Your task to perform on an android device: Show me productivity apps on the Play Store Image 0: 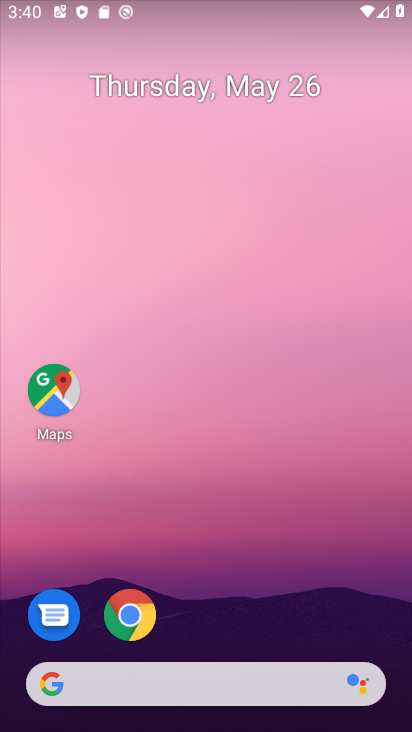
Step 0: drag from (303, 624) to (333, 58)
Your task to perform on an android device: Show me productivity apps on the Play Store Image 1: 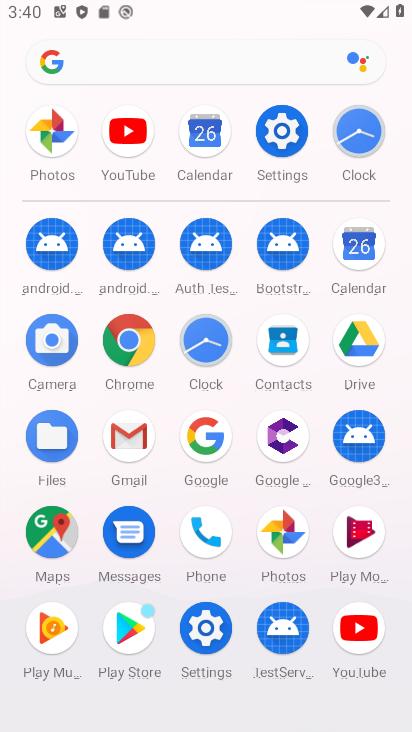
Step 1: click (95, 643)
Your task to perform on an android device: Show me productivity apps on the Play Store Image 2: 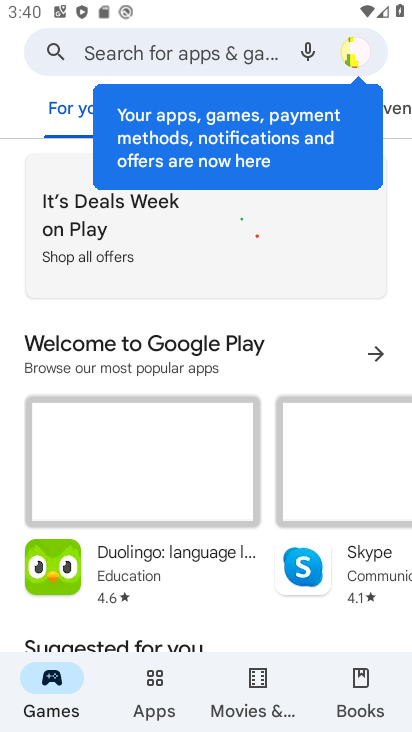
Step 2: drag from (121, 325) to (110, 189)
Your task to perform on an android device: Show me productivity apps on the Play Store Image 3: 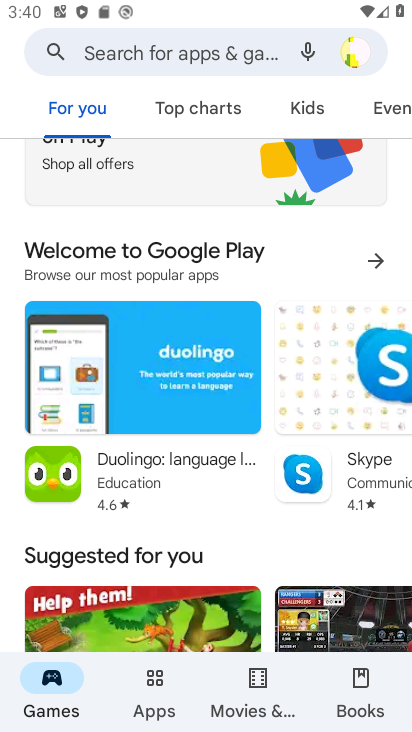
Step 3: click (145, 105)
Your task to perform on an android device: Show me productivity apps on the Play Store Image 4: 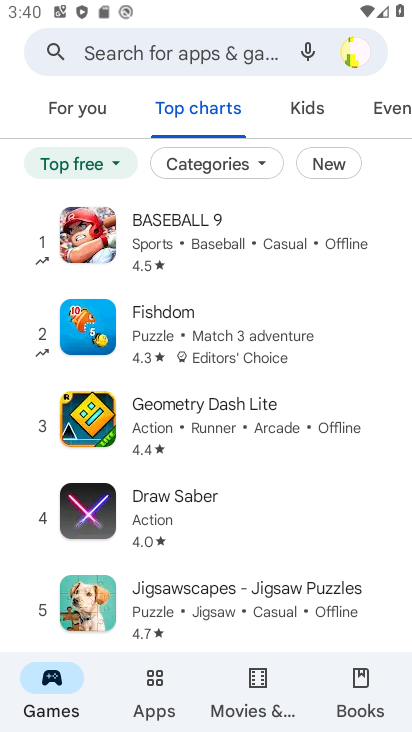
Step 4: task complete